Your task to perform on an android device: Open Chrome and go to settings Image 0: 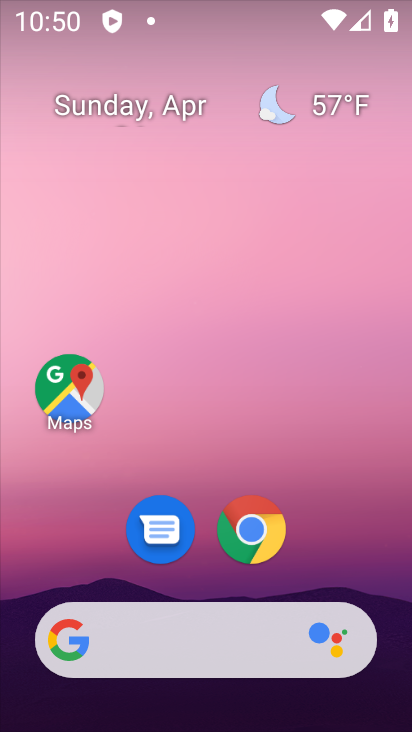
Step 0: click (256, 536)
Your task to perform on an android device: Open Chrome and go to settings Image 1: 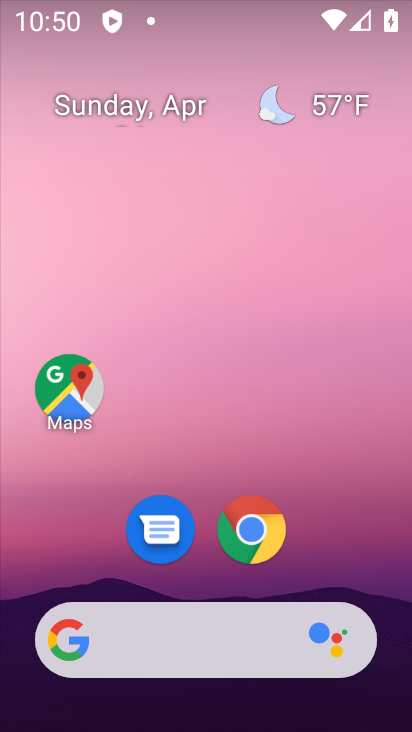
Step 1: click (256, 536)
Your task to perform on an android device: Open Chrome and go to settings Image 2: 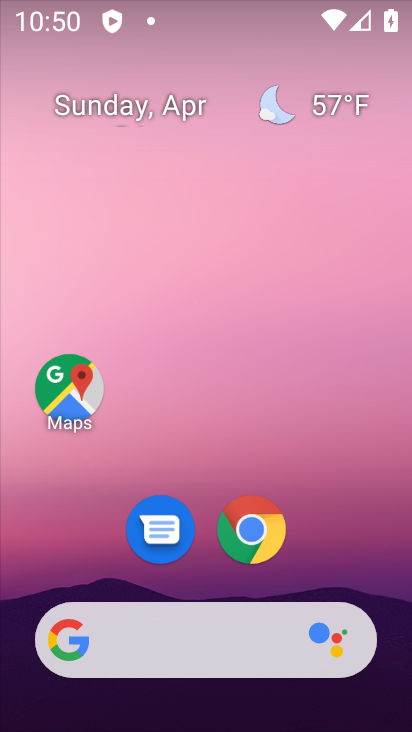
Step 2: click (243, 528)
Your task to perform on an android device: Open Chrome and go to settings Image 3: 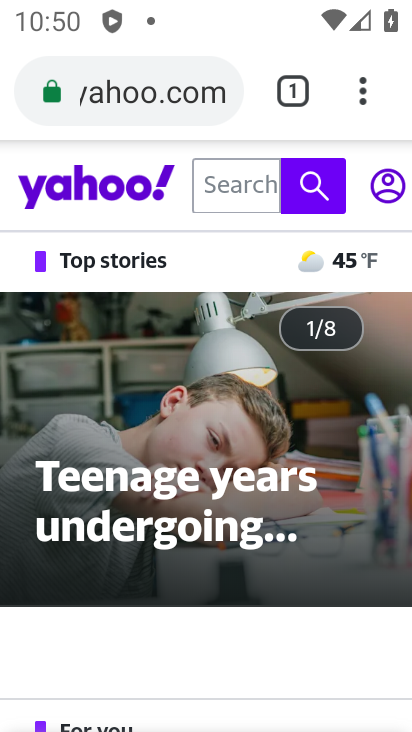
Step 3: click (361, 89)
Your task to perform on an android device: Open Chrome and go to settings Image 4: 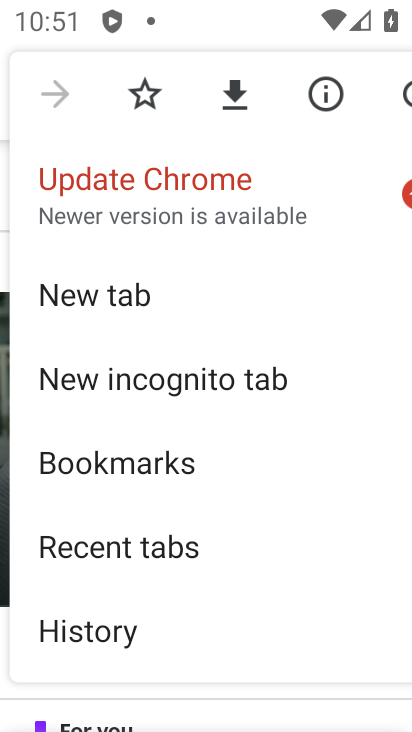
Step 4: drag from (225, 632) to (176, 185)
Your task to perform on an android device: Open Chrome and go to settings Image 5: 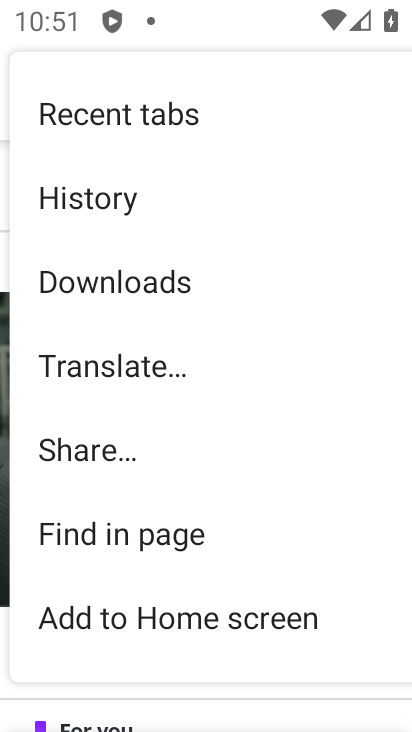
Step 5: drag from (196, 573) to (159, 132)
Your task to perform on an android device: Open Chrome and go to settings Image 6: 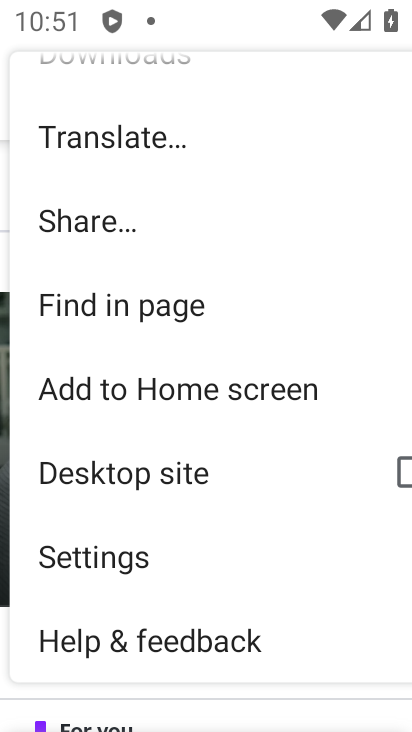
Step 6: click (148, 566)
Your task to perform on an android device: Open Chrome and go to settings Image 7: 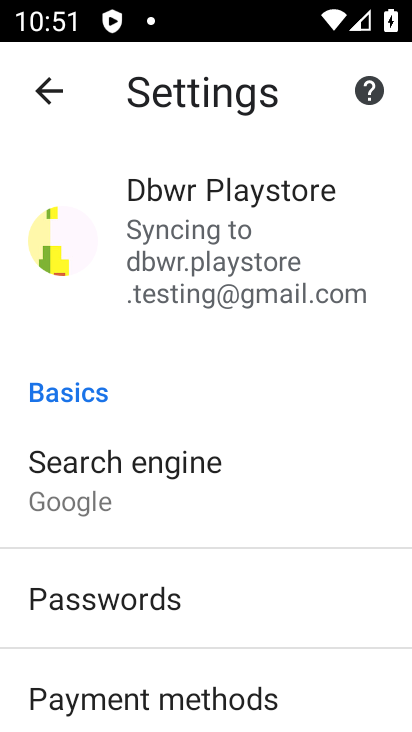
Step 7: task complete